Your task to perform on an android device: Go to Google Image 0: 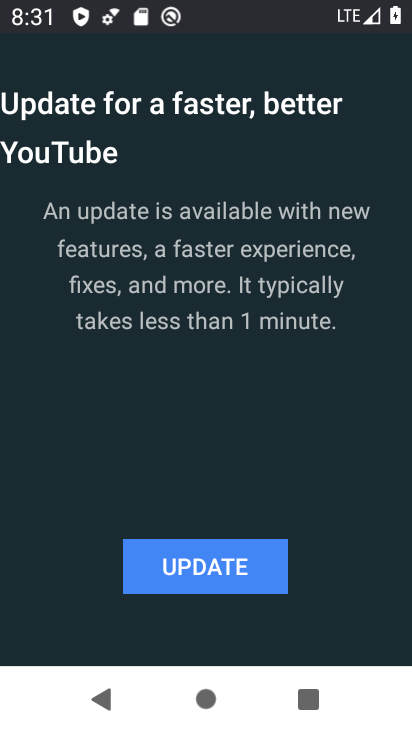
Step 0: press home button
Your task to perform on an android device: Go to Google Image 1: 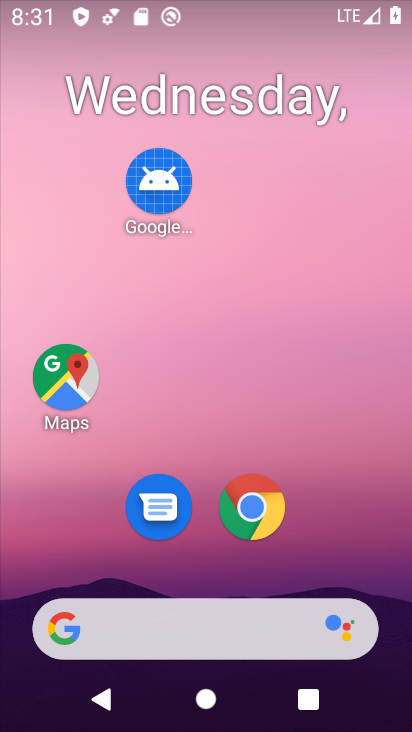
Step 1: drag from (217, 581) to (242, 0)
Your task to perform on an android device: Go to Google Image 2: 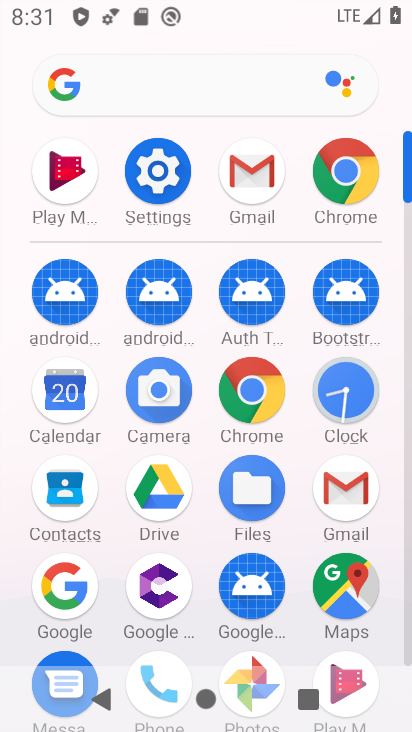
Step 2: drag from (209, 548) to (214, 84)
Your task to perform on an android device: Go to Google Image 3: 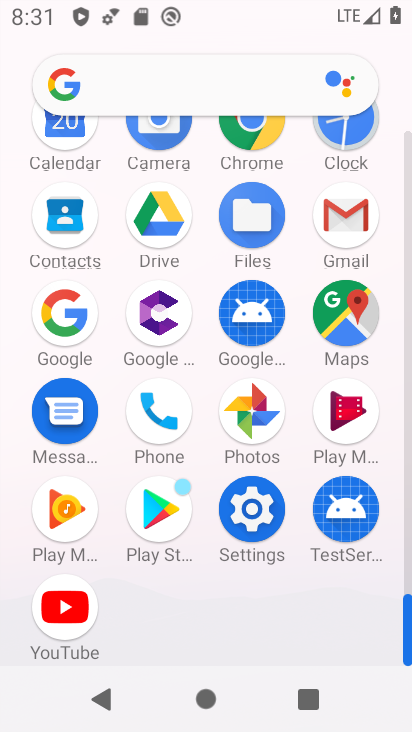
Step 3: drag from (197, 238) to (203, 510)
Your task to perform on an android device: Go to Google Image 4: 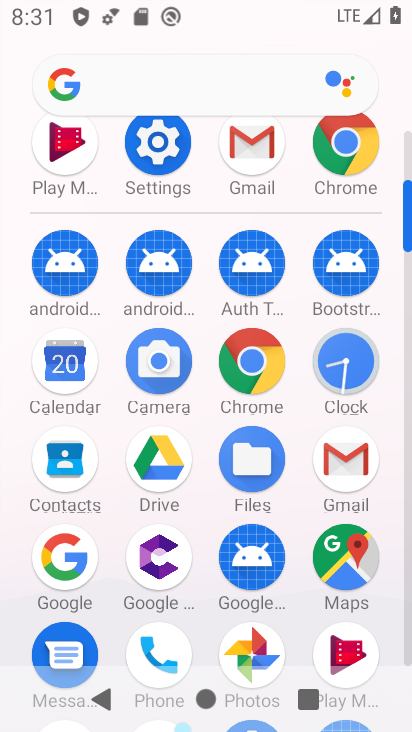
Step 4: click (71, 577)
Your task to perform on an android device: Go to Google Image 5: 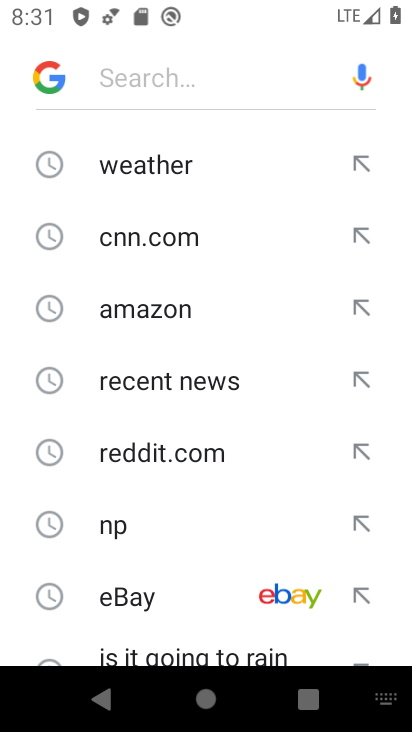
Step 5: task complete